Your task to perform on an android device: Open Chrome and go to the settings page Image 0: 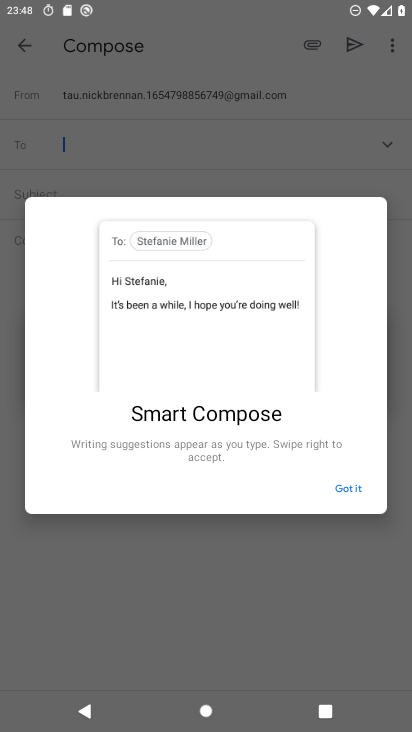
Step 0: press home button
Your task to perform on an android device: Open Chrome and go to the settings page Image 1: 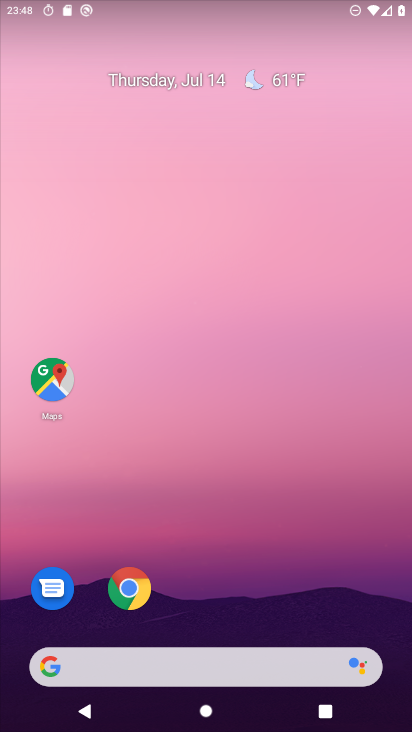
Step 1: click (123, 604)
Your task to perform on an android device: Open Chrome and go to the settings page Image 2: 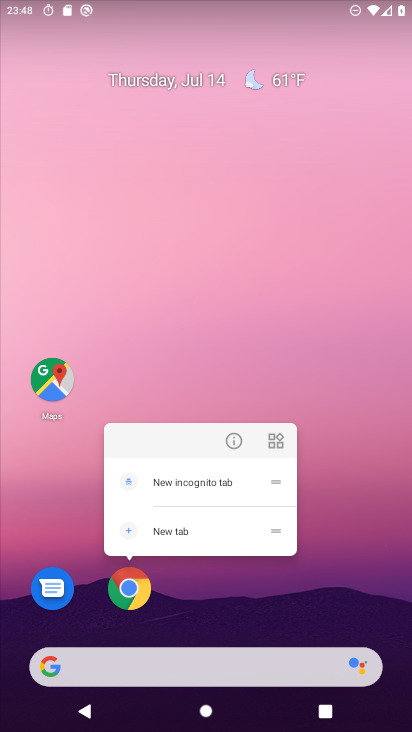
Step 2: click (132, 588)
Your task to perform on an android device: Open Chrome and go to the settings page Image 3: 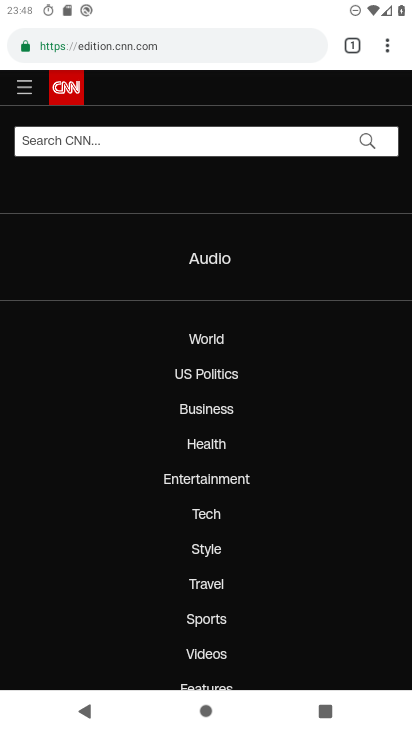
Step 3: click (392, 50)
Your task to perform on an android device: Open Chrome and go to the settings page Image 4: 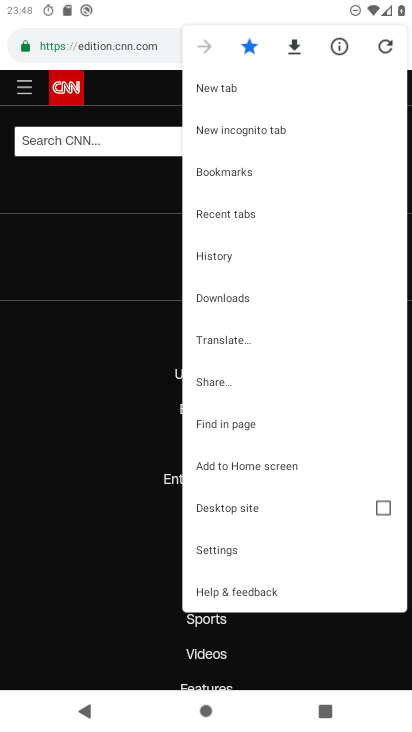
Step 4: click (234, 547)
Your task to perform on an android device: Open Chrome and go to the settings page Image 5: 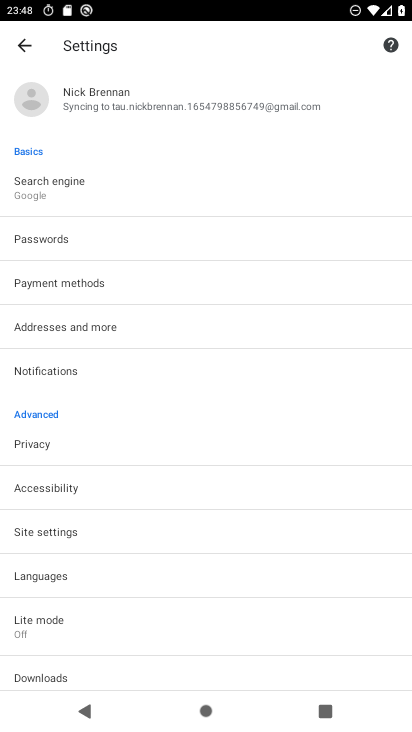
Step 5: task complete